Your task to perform on an android device: What's the weather today? Image 0: 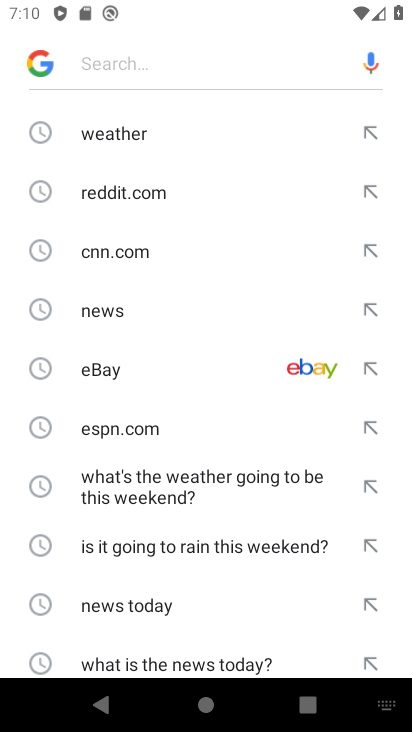
Step 0: click (114, 131)
Your task to perform on an android device: What's the weather today? Image 1: 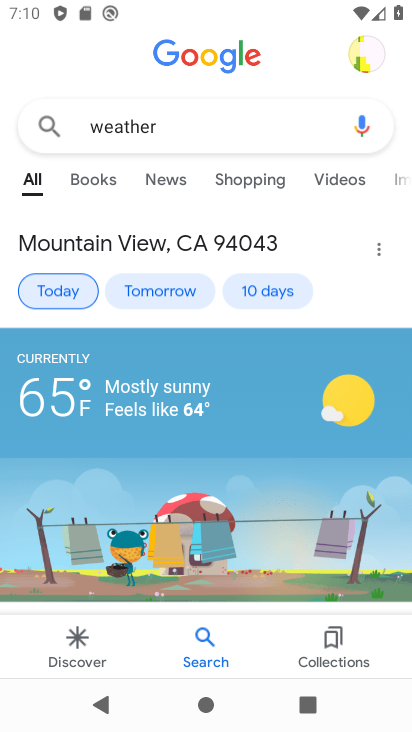
Step 1: task complete